Your task to perform on an android device: snooze an email in the gmail app Image 0: 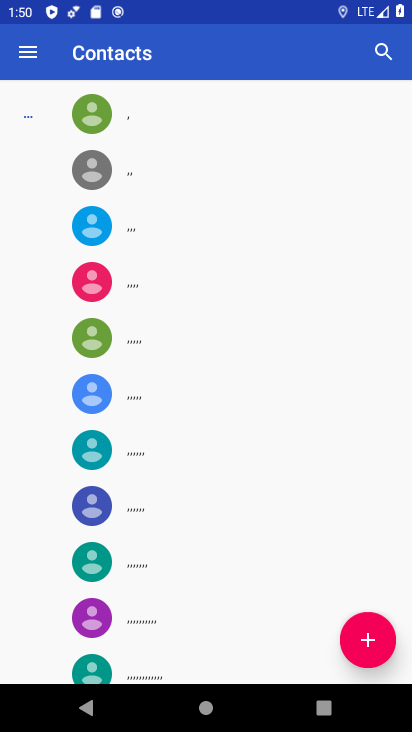
Step 0: drag from (145, 627) to (239, 217)
Your task to perform on an android device: snooze an email in the gmail app Image 1: 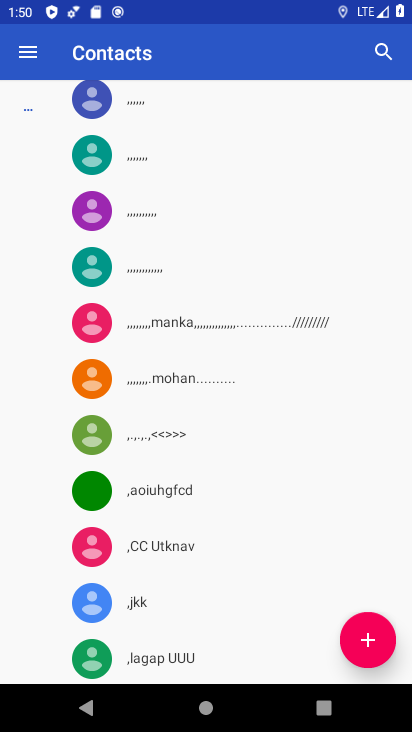
Step 1: press home button
Your task to perform on an android device: snooze an email in the gmail app Image 2: 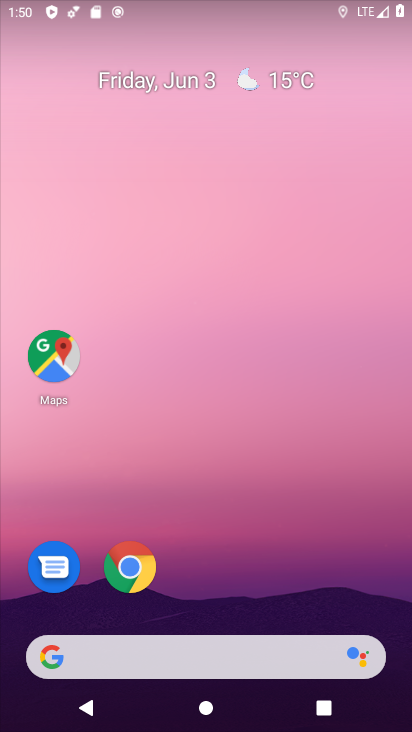
Step 2: drag from (160, 630) to (241, 93)
Your task to perform on an android device: snooze an email in the gmail app Image 3: 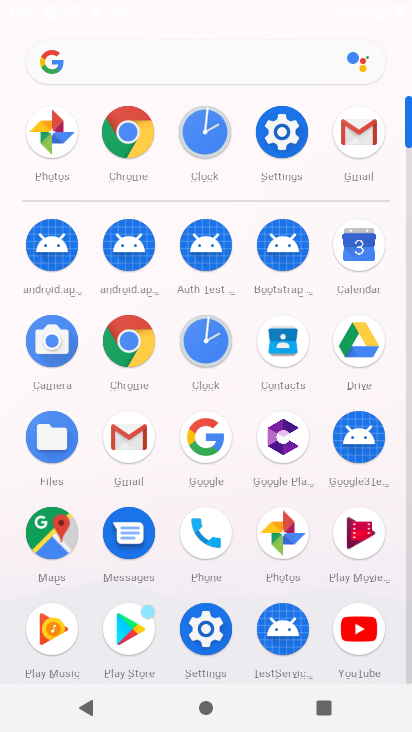
Step 3: click (351, 135)
Your task to perform on an android device: snooze an email in the gmail app Image 4: 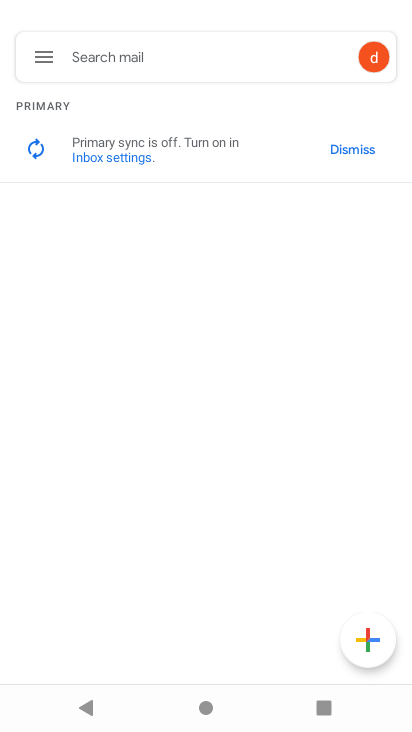
Step 4: task complete